Your task to perform on an android device: Go to battery settings Image 0: 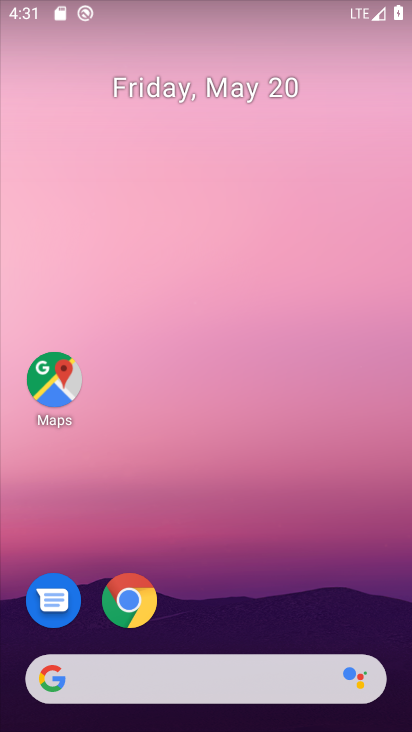
Step 0: drag from (274, 414) to (182, 88)
Your task to perform on an android device: Go to battery settings Image 1: 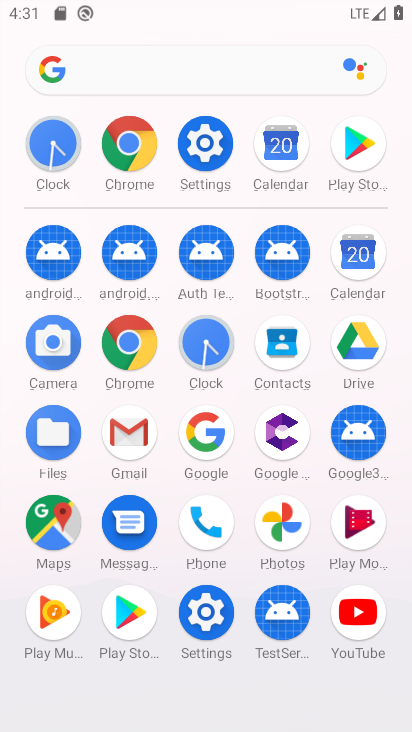
Step 1: click (201, 141)
Your task to perform on an android device: Go to battery settings Image 2: 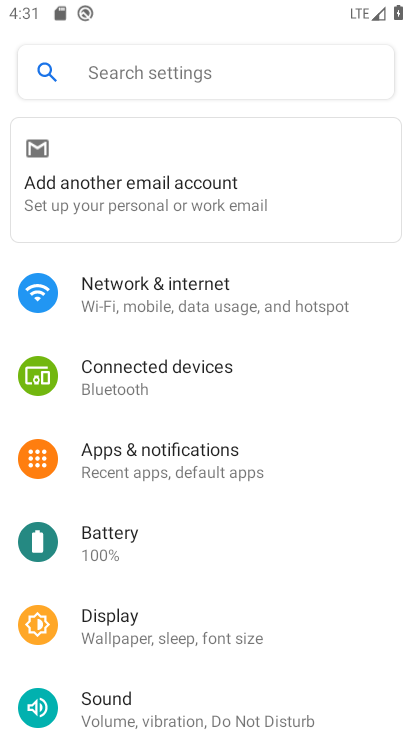
Step 2: click (194, 539)
Your task to perform on an android device: Go to battery settings Image 3: 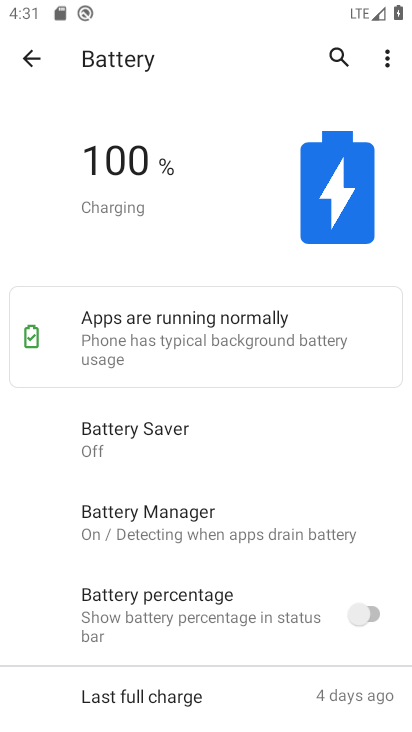
Step 3: task complete